Your task to perform on an android device: check storage Image 0: 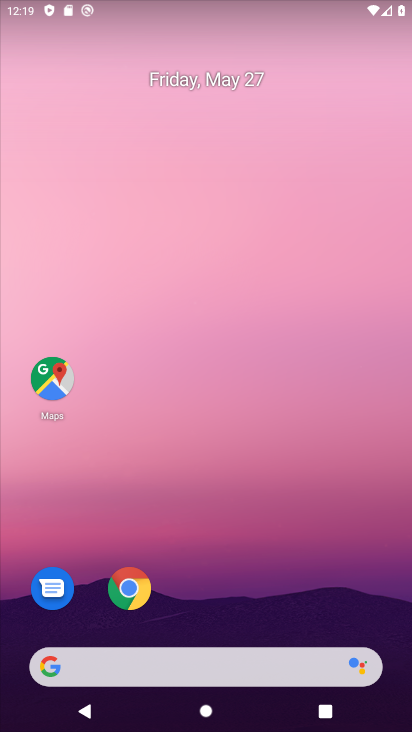
Step 0: drag from (192, 620) to (264, 74)
Your task to perform on an android device: check storage Image 1: 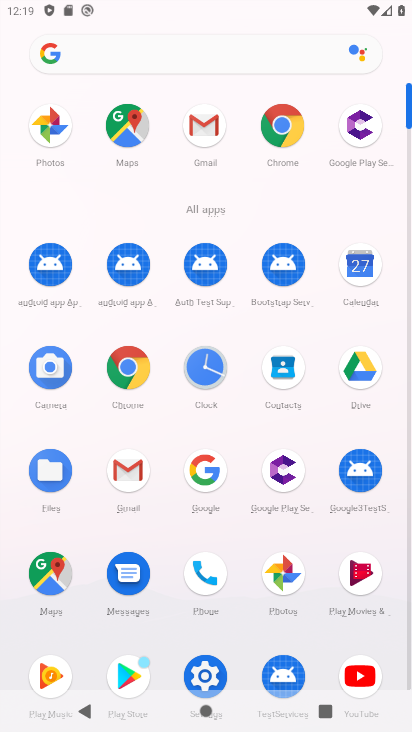
Step 1: click (212, 681)
Your task to perform on an android device: check storage Image 2: 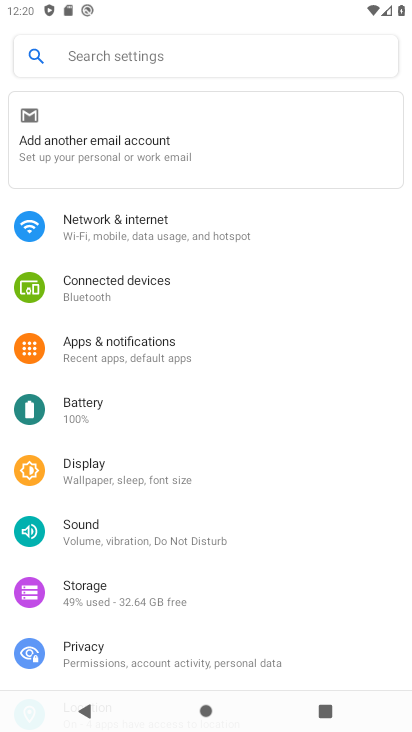
Step 2: click (103, 575)
Your task to perform on an android device: check storage Image 3: 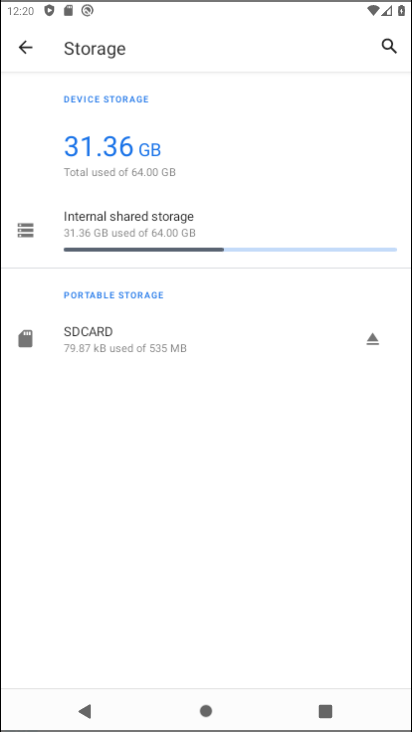
Step 3: task complete